Your task to perform on an android device: open sync settings in chrome Image 0: 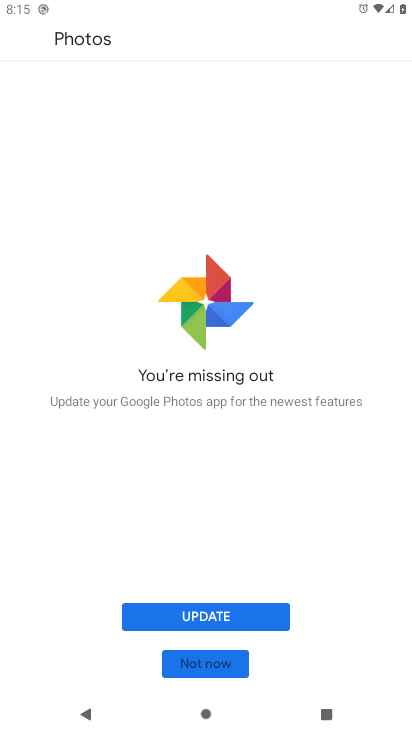
Step 0: press home button
Your task to perform on an android device: open sync settings in chrome Image 1: 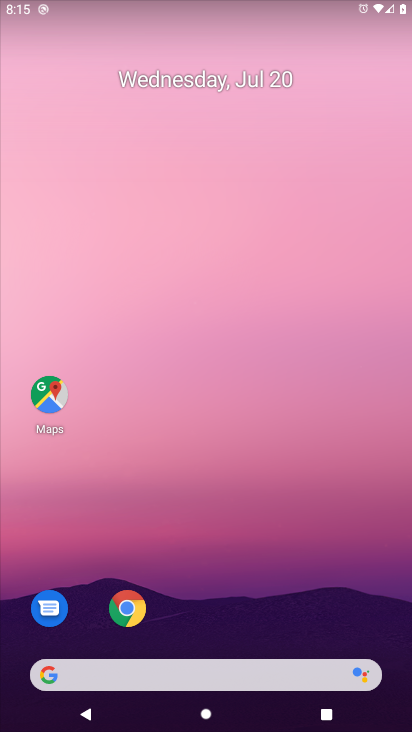
Step 1: click (126, 607)
Your task to perform on an android device: open sync settings in chrome Image 2: 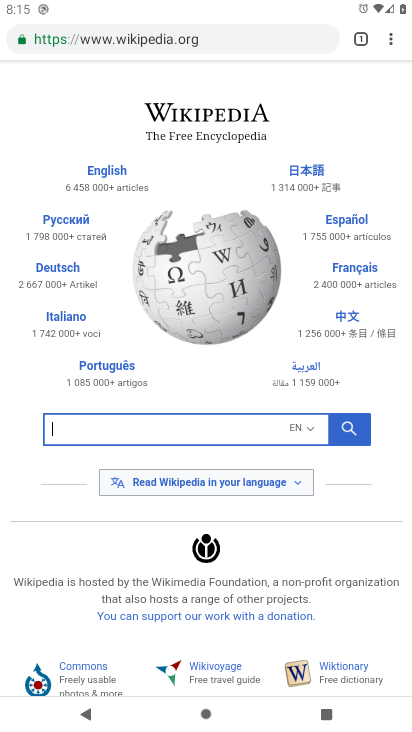
Step 2: click (395, 38)
Your task to perform on an android device: open sync settings in chrome Image 3: 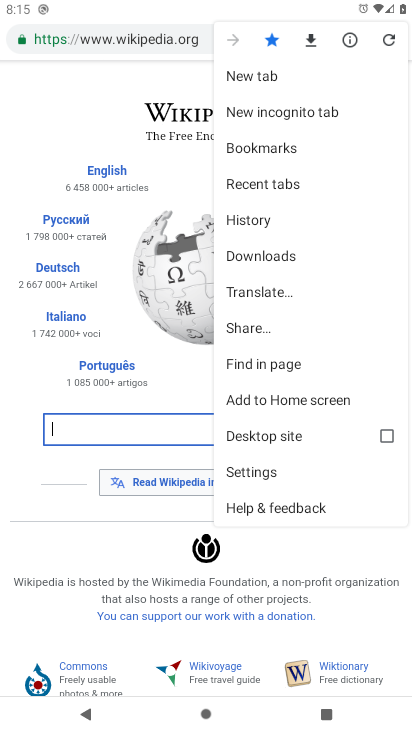
Step 3: click (262, 475)
Your task to perform on an android device: open sync settings in chrome Image 4: 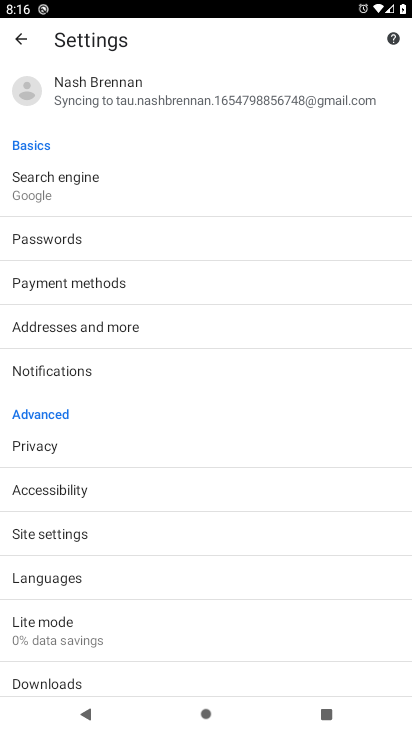
Step 4: click (115, 79)
Your task to perform on an android device: open sync settings in chrome Image 5: 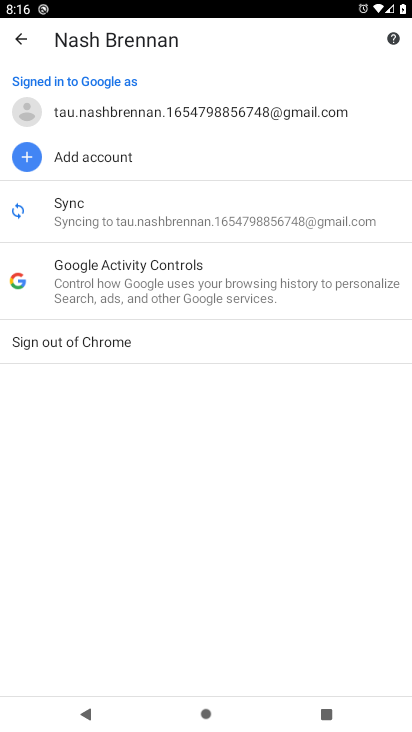
Step 5: click (129, 206)
Your task to perform on an android device: open sync settings in chrome Image 6: 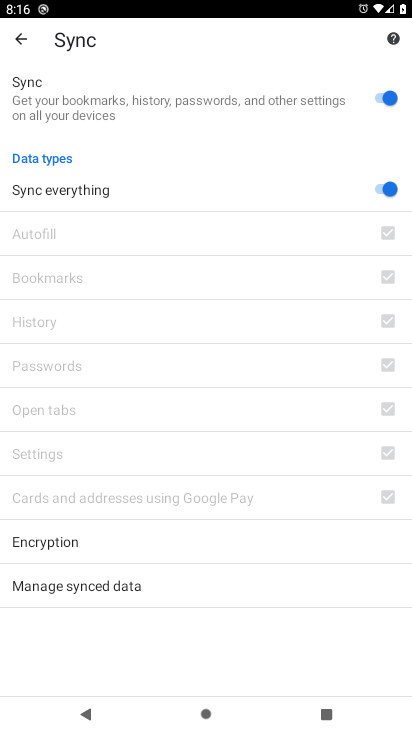
Step 6: task complete